Your task to perform on an android device: Is it going to rain tomorrow? Image 0: 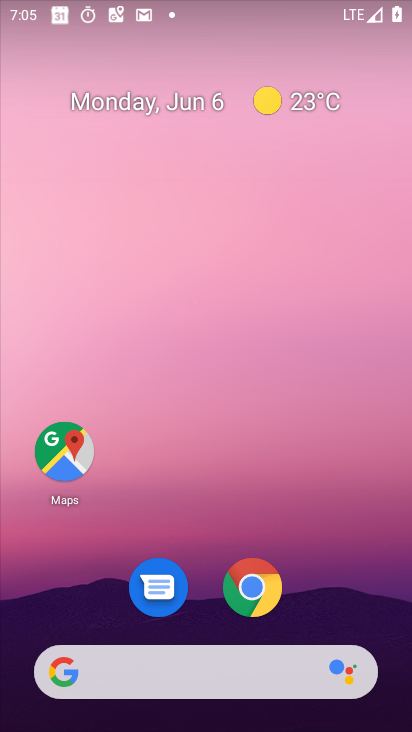
Step 0: drag from (402, 657) to (293, 76)
Your task to perform on an android device: Is it going to rain tomorrow? Image 1: 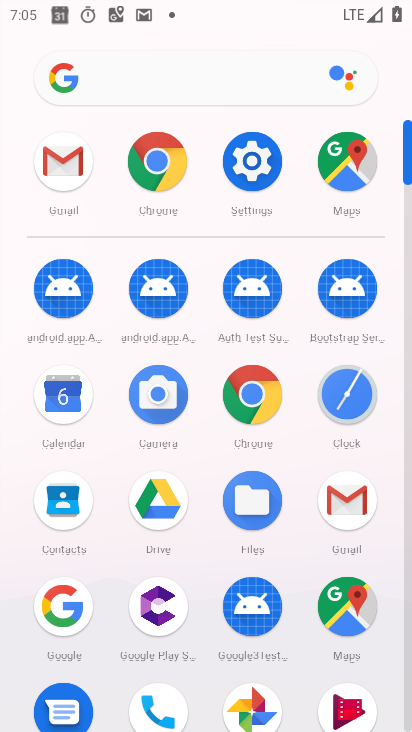
Step 1: click (55, 597)
Your task to perform on an android device: Is it going to rain tomorrow? Image 2: 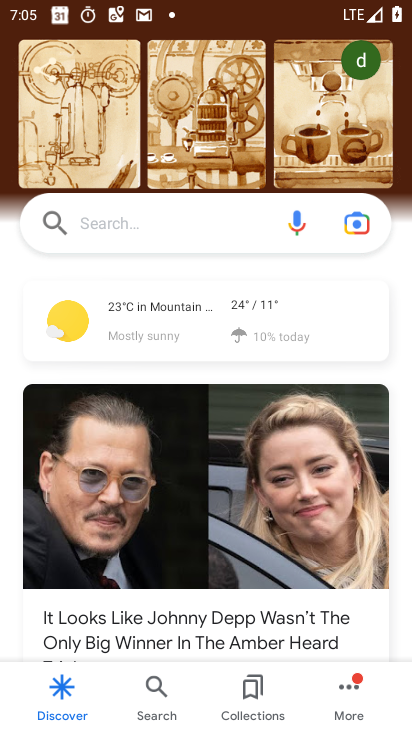
Step 2: click (147, 228)
Your task to perform on an android device: Is it going to rain tomorrow? Image 3: 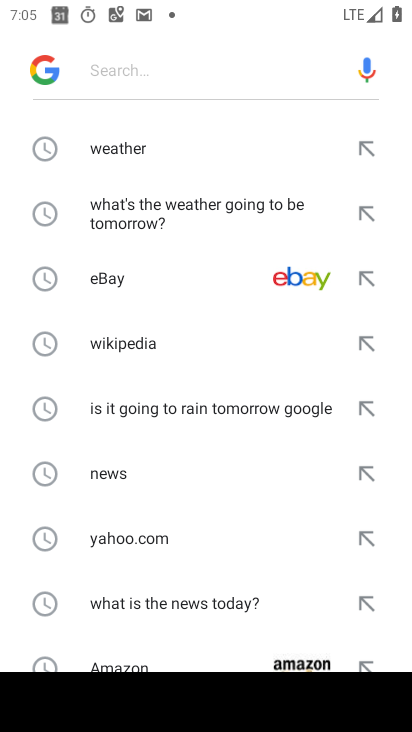
Step 3: click (115, 425)
Your task to perform on an android device: Is it going to rain tomorrow? Image 4: 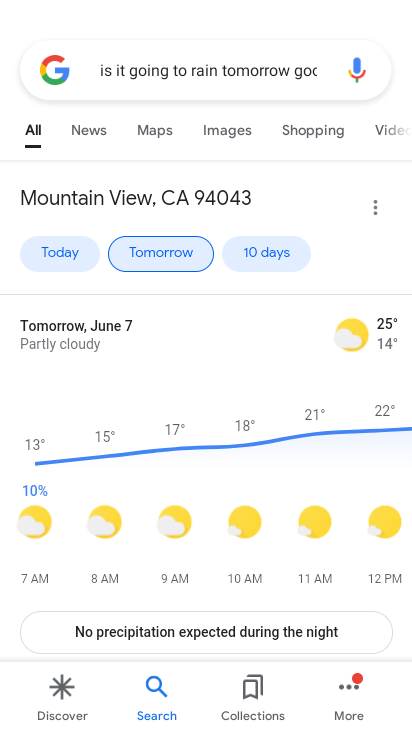
Step 4: task complete